Your task to perform on an android device: toggle data saver in the chrome app Image 0: 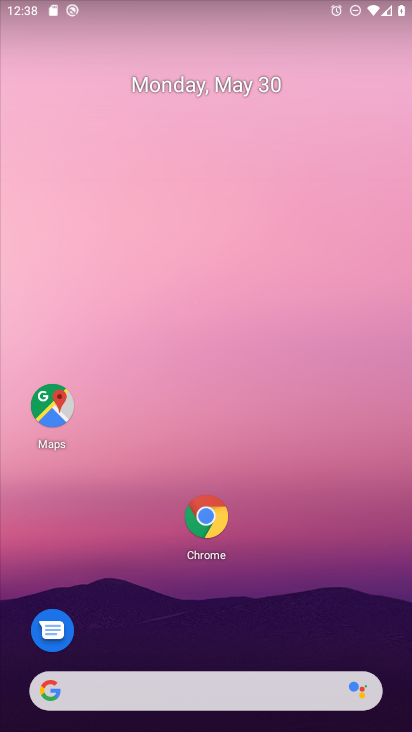
Step 0: press home button
Your task to perform on an android device: toggle data saver in the chrome app Image 1: 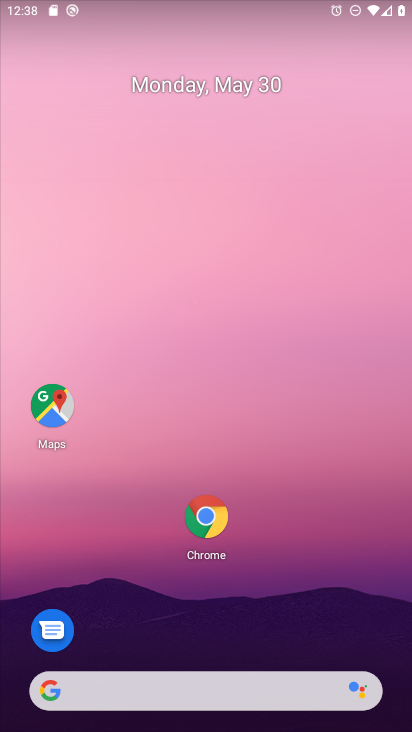
Step 1: click (195, 526)
Your task to perform on an android device: toggle data saver in the chrome app Image 2: 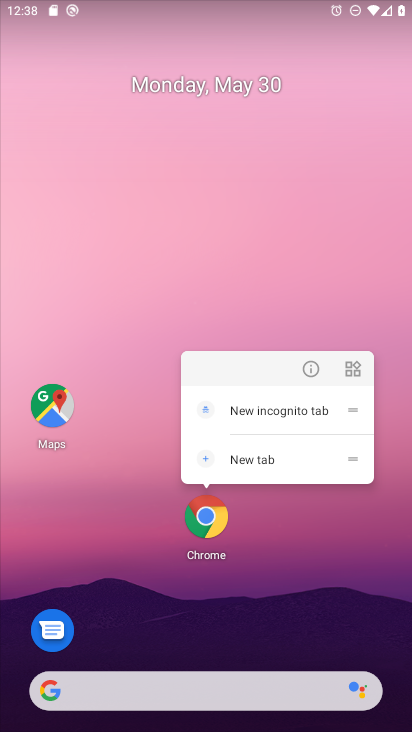
Step 2: click (198, 517)
Your task to perform on an android device: toggle data saver in the chrome app Image 3: 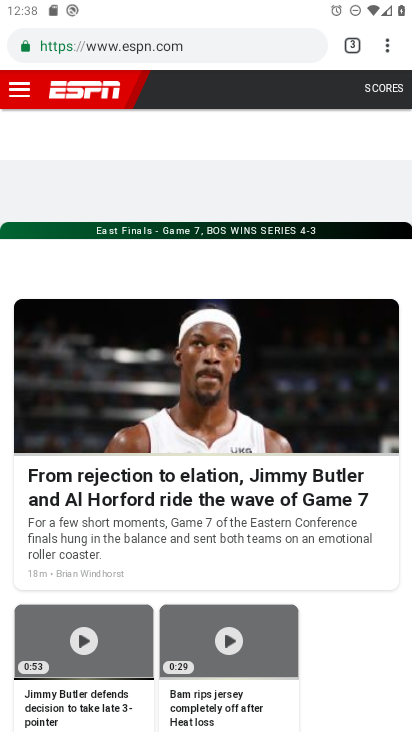
Step 3: drag from (385, 46) to (269, 546)
Your task to perform on an android device: toggle data saver in the chrome app Image 4: 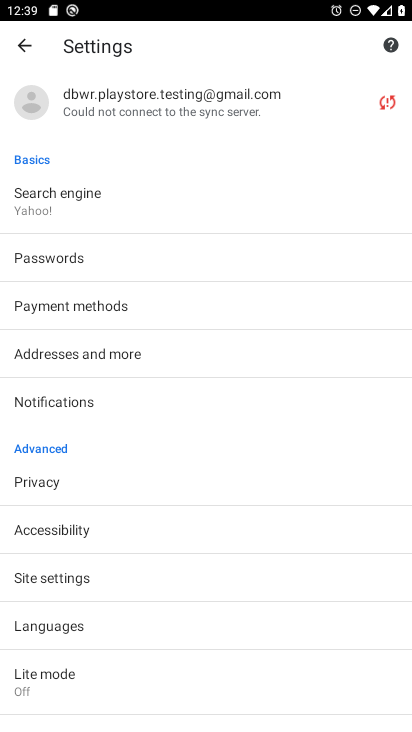
Step 4: click (77, 680)
Your task to perform on an android device: toggle data saver in the chrome app Image 5: 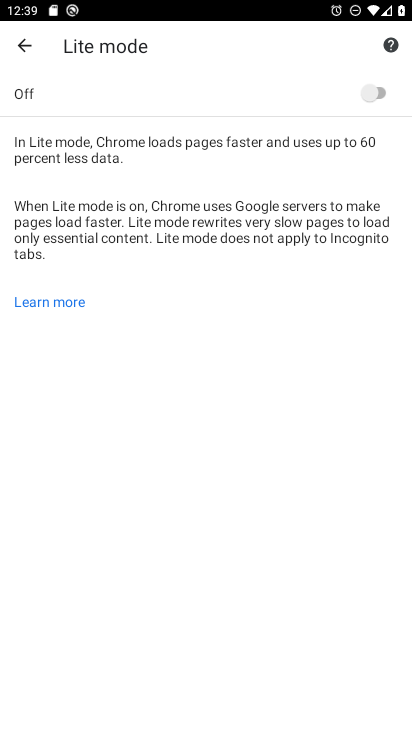
Step 5: click (380, 86)
Your task to perform on an android device: toggle data saver in the chrome app Image 6: 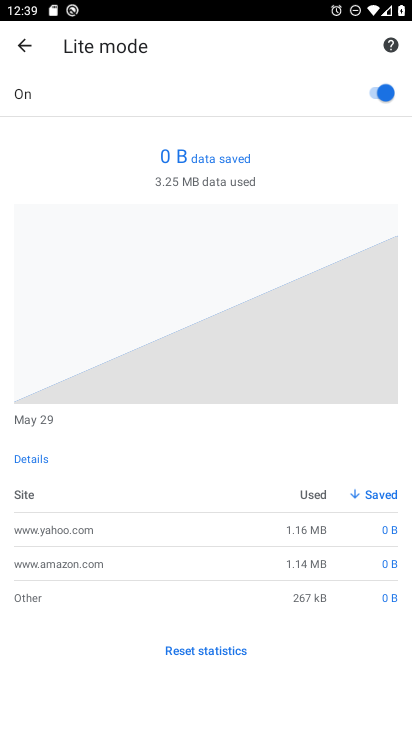
Step 6: click (376, 91)
Your task to perform on an android device: toggle data saver in the chrome app Image 7: 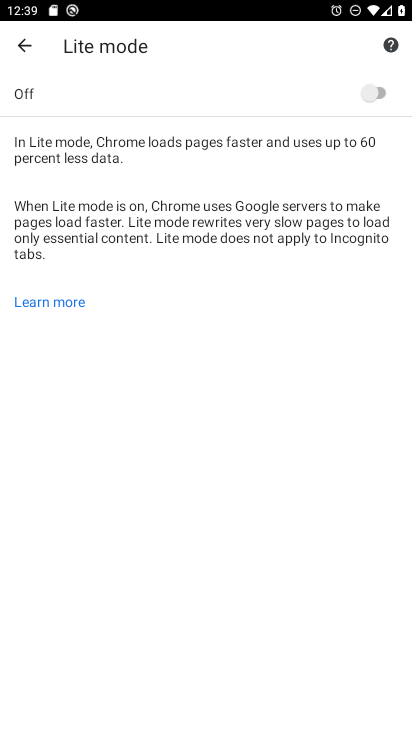
Step 7: task complete